Your task to perform on an android device: What's the weather going to be this weekend? Image 0: 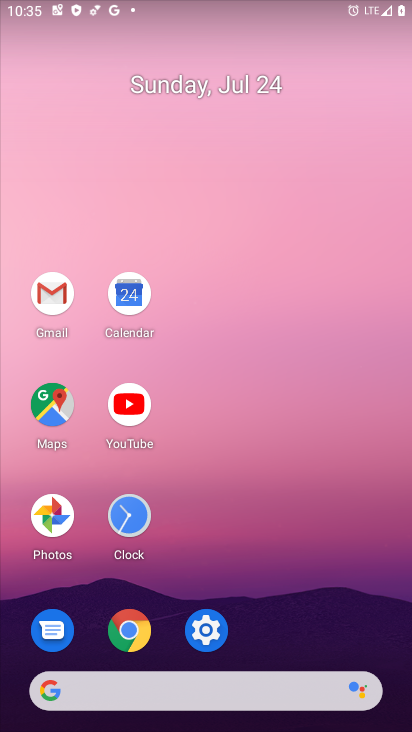
Step 0: click (158, 686)
Your task to perform on an android device: What's the weather going to be this weekend? Image 1: 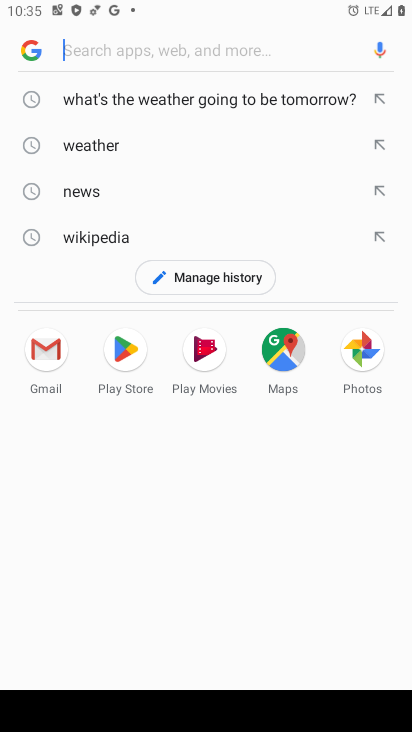
Step 1: click (77, 140)
Your task to perform on an android device: What's the weather going to be this weekend? Image 2: 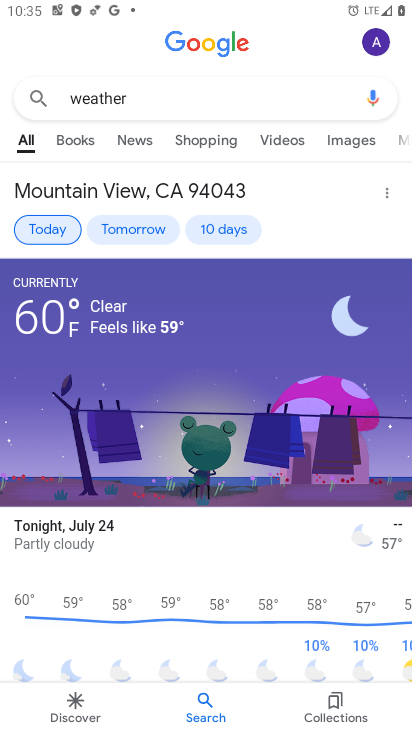
Step 2: click (215, 225)
Your task to perform on an android device: What's the weather going to be this weekend? Image 3: 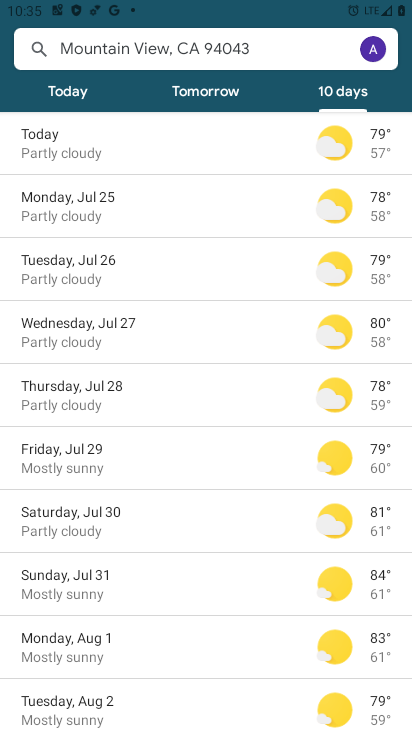
Step 3: task complete